Your task to perform on an android device: Go to internet settings Image 0: 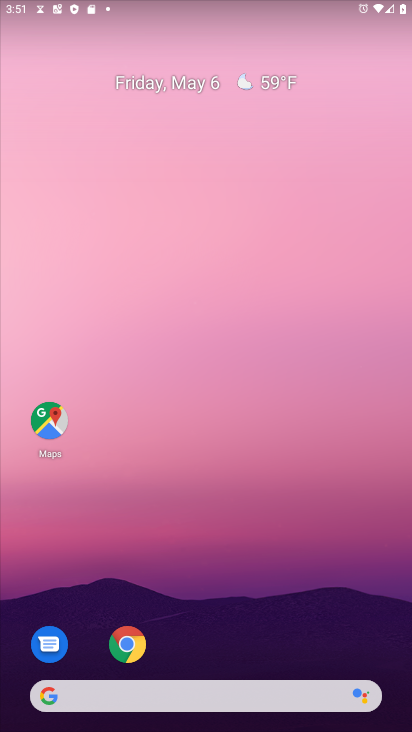
Step 0: drag from (178, 582) to (183, 70)
Your task to perform on an android device: Go to internet settings Image 1: 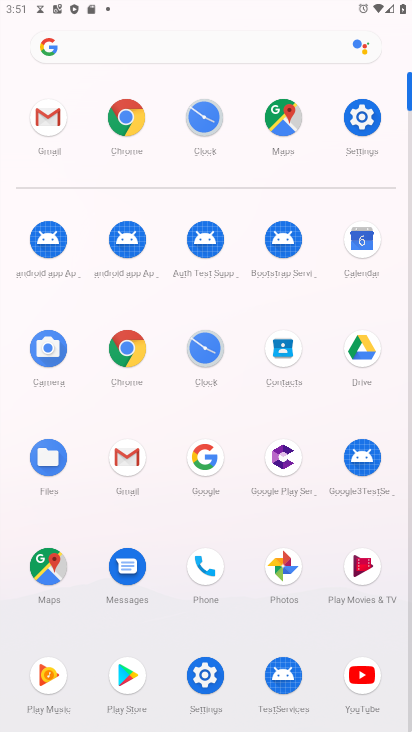
Step 1: click (204, 673)
Your task to perform on an android device: Go to internet settings Image 2: 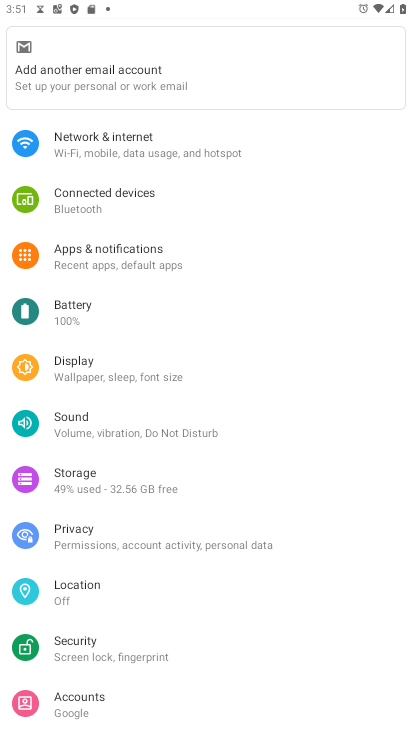
Step 2: click (115, 135)
Your task to perform on an android device: Go to internet settings Image 3: 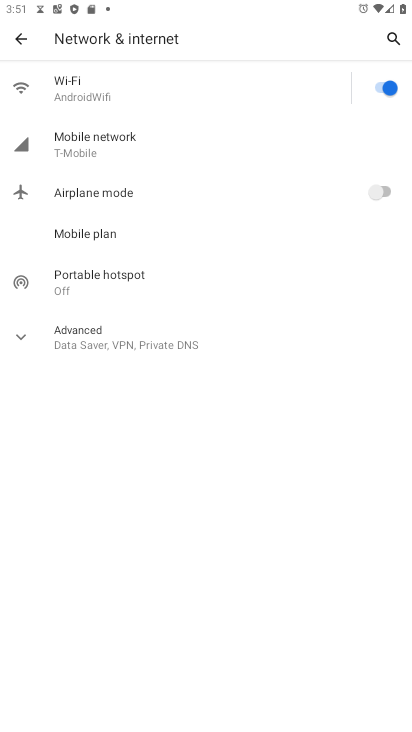
Step 3: click (81, 95)
Your task to perform on an android device: Go to internet settings Image 4: 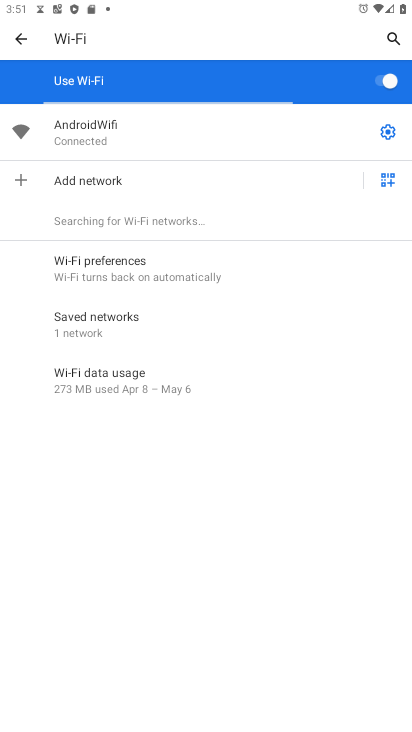
Step 4: task complete